Your task to perform on an android device: Do I have any events tomorrow? Image 0: 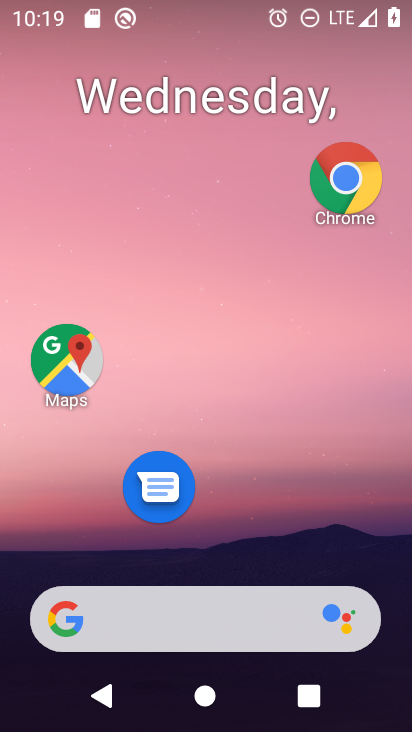
Step 0: drag from (257, 673) to (319, 222)
Your task to perform on an android device: Do I have any events tomorrow? Image 1: 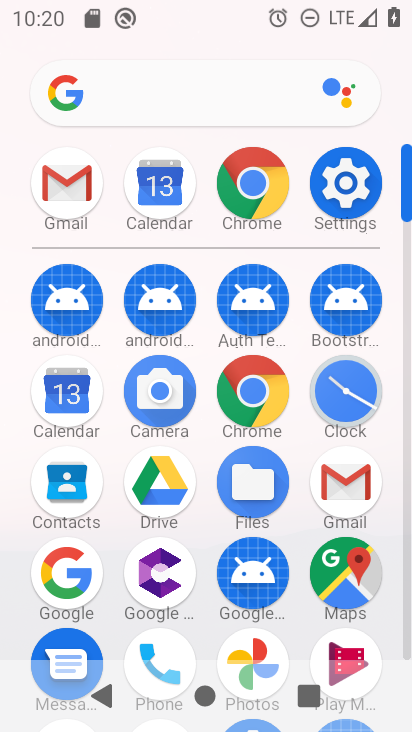
Step 1: click (85, 421)
Your task to perform on an android device: Do I have any events tomorrow? Image 2: 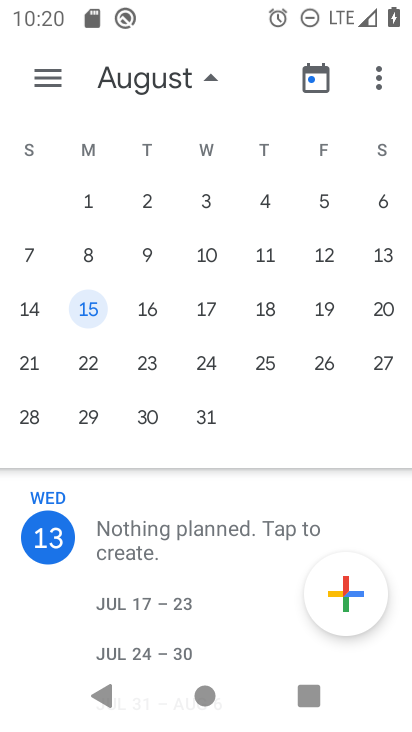
Step 2: drag from (54, 322) to (410, 359)
Your task to perform on an android device: Do I have any events tomorrow? Image 3: 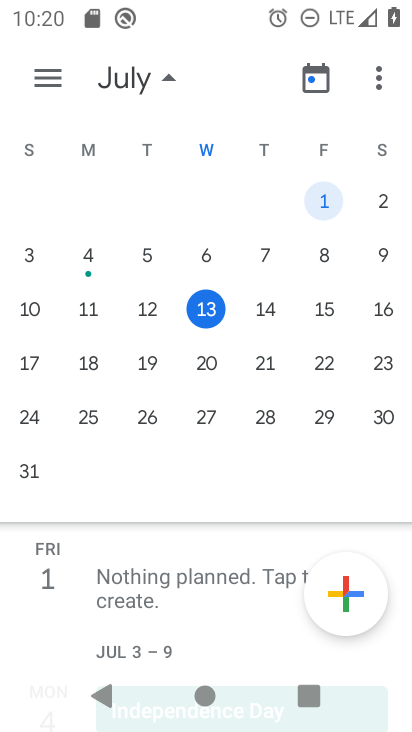
Step 3: click (205, 306)
Your task to perform on an android device: Do I have any events tomorrow? Image 4: 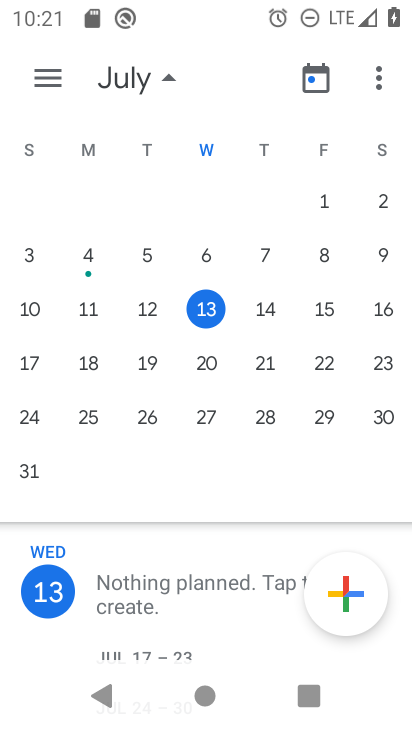
Step 4: click (265, 314)
Your task to perform on an android device: Do I have any events tomorrow? Image 5: 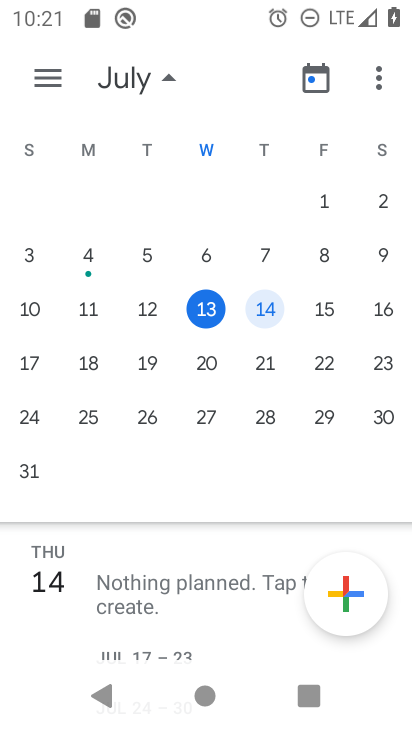
Step 5: task complete